Your task to perform on an android device: turn pop-ups off in chrome Image 0: 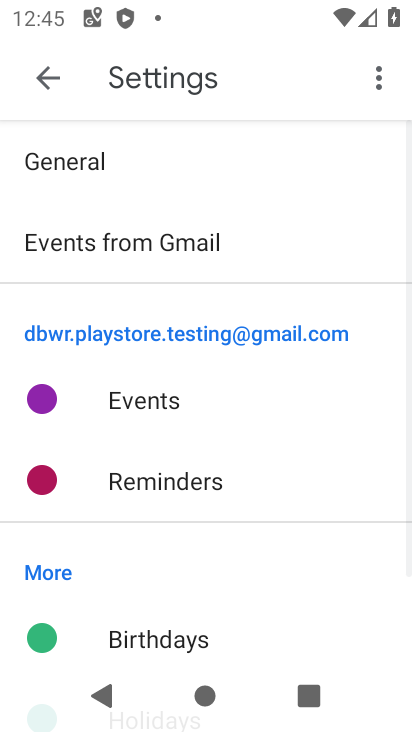
Step 0: press back button
Your task to perform on an android device: turn pop-ups off in chrome Image 1: 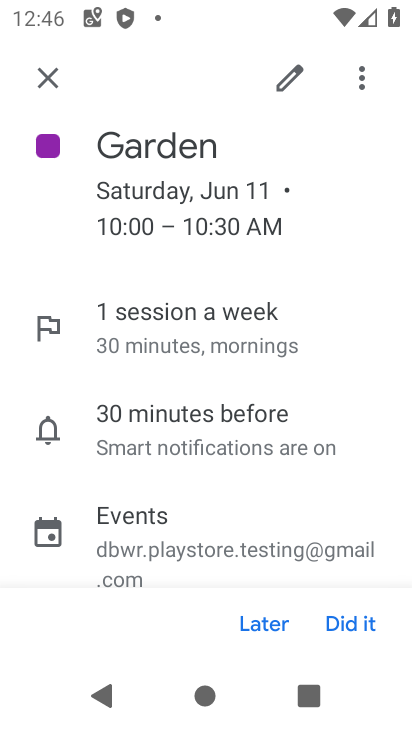
Step 1: click (57, 81)
Your task to perform on an android device: turn pop-ups off in chrome Image 2: 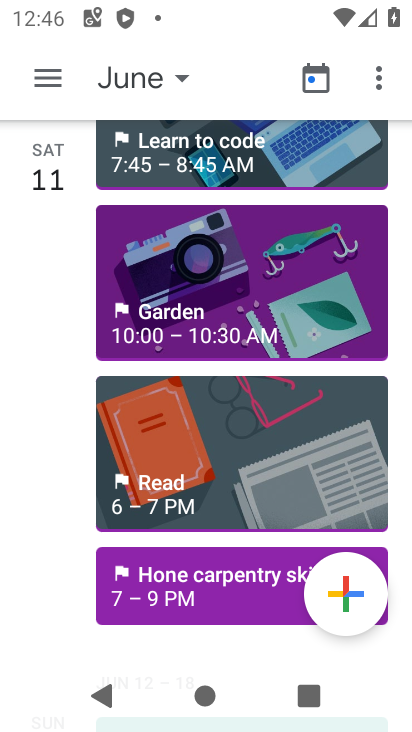
Step 2: press back button
Your task to perform on an android device: turn pop-ups off in chrome Image 3: 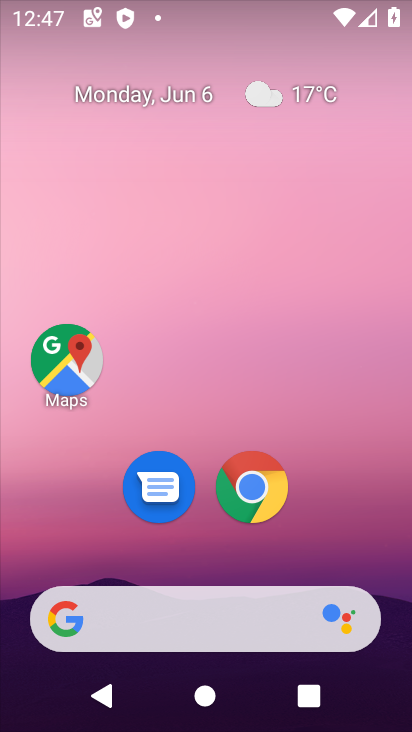
Step 3: click (267, 466)
Your task to perform on an android device: turn pop-ups off in chrome Image 4: 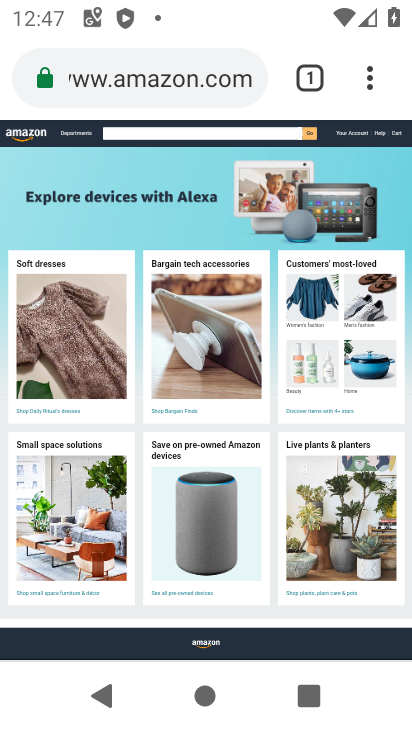
Step 4: drag from (367, 74) to (134, 543)
Your task to perform on an android device: turn pop-ups off in chrome Image 5: 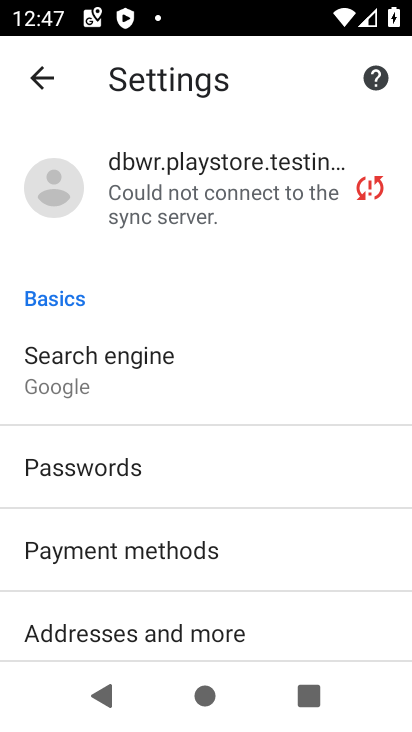
Step 5: drag from (164, 574) to (270, 57)
Your task to perform on an android device: turn pop-ups off in chrome Image 6: 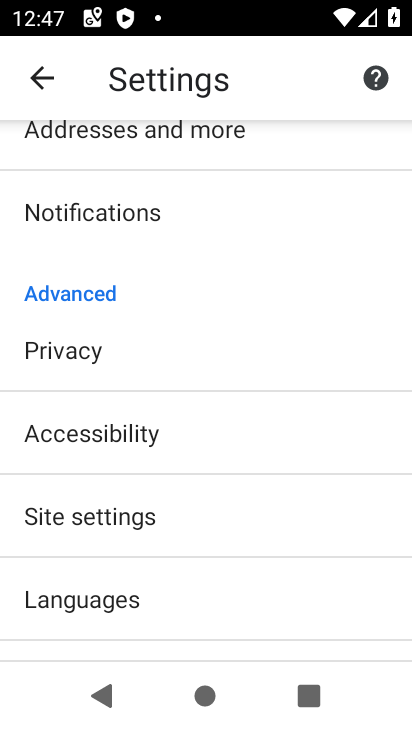
Step 6: click (113, 518)
Your task to perform on an android device: turn pop-ups off in chrome Image 7: 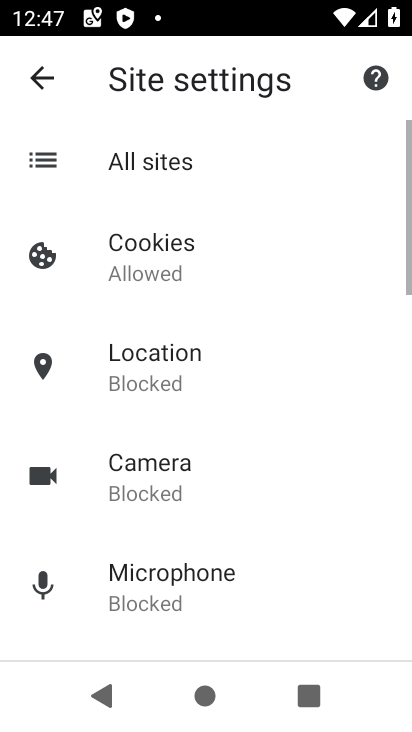
Step 7: drag from (185, 575) to (255, 45)
Your task to perform on an android device: turn pop-ups off in chrome Image 8: 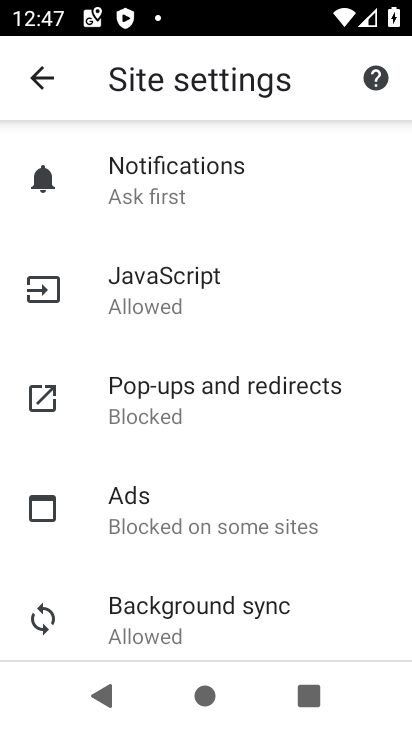
Step 8: click (141, 400)
Your task to perform on an android device: turn pop-ups off in chrome Image 9: 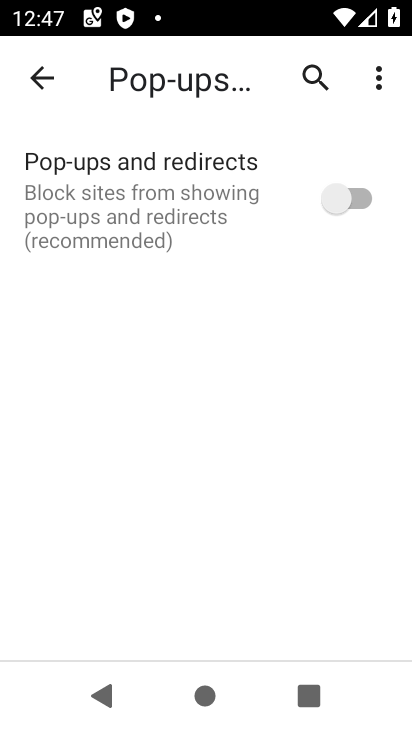
Step 9: task complete